Your task to perform on an android device: Open Maps and search for coffee Image 0: 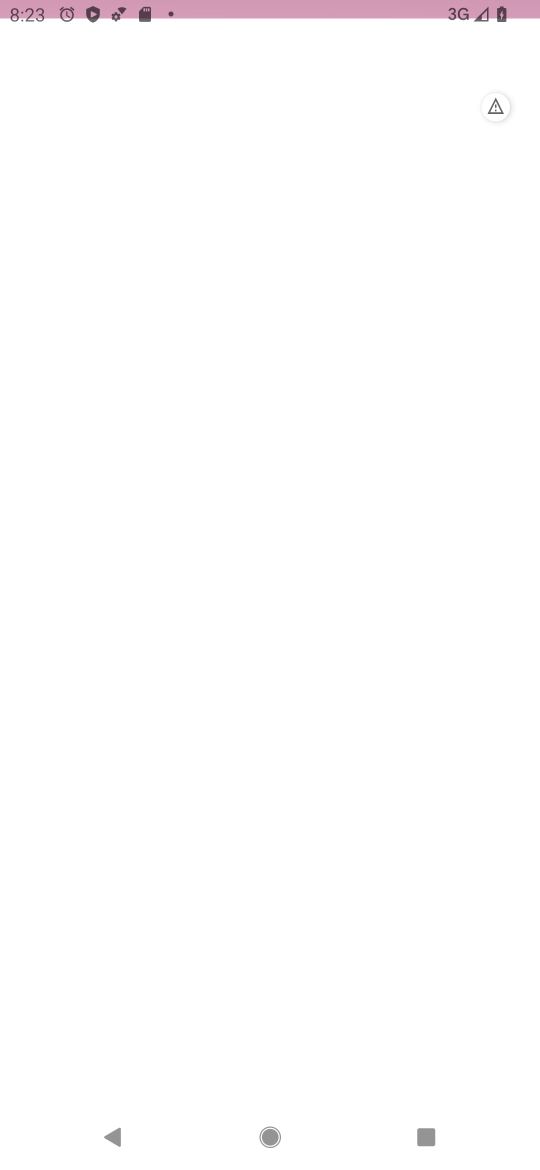
Step 0: click (248, 406)
Your task to perform on an android device: Open Maps and search for coffee Image 1: 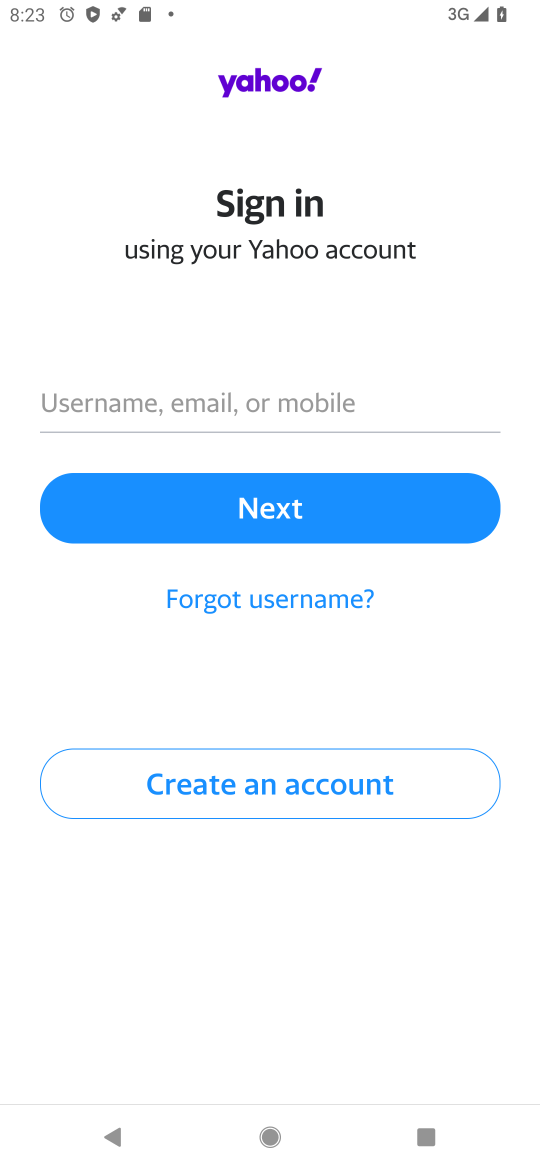
Step 1: press back button
Your task to perform on an android device: Open Maps and search for coffee Image 2: 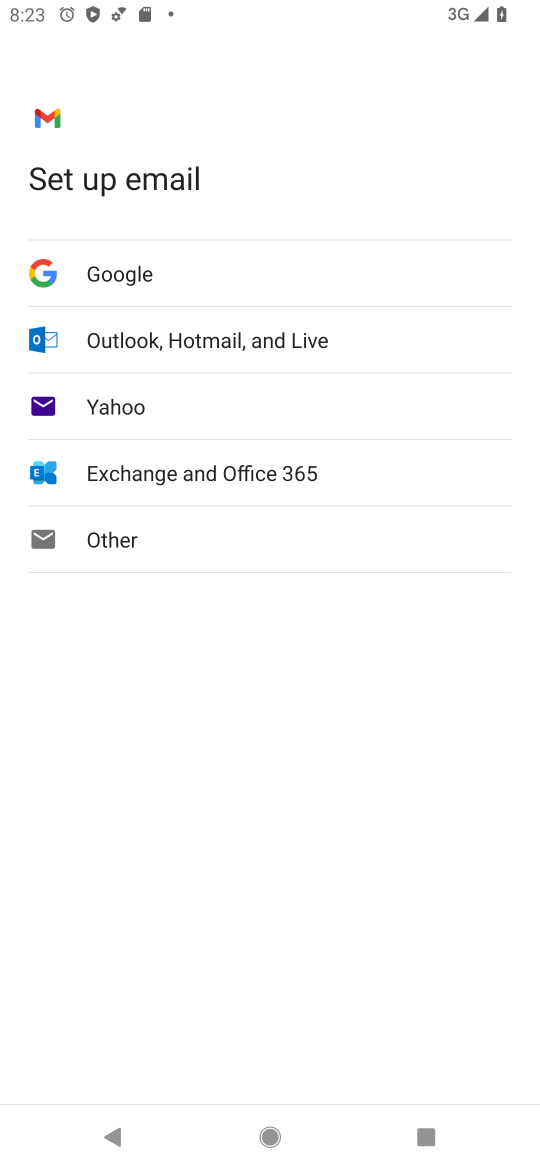
Step 2: press home button
Your task to perform on an android device: Open Maps and search for coffee Image 3: 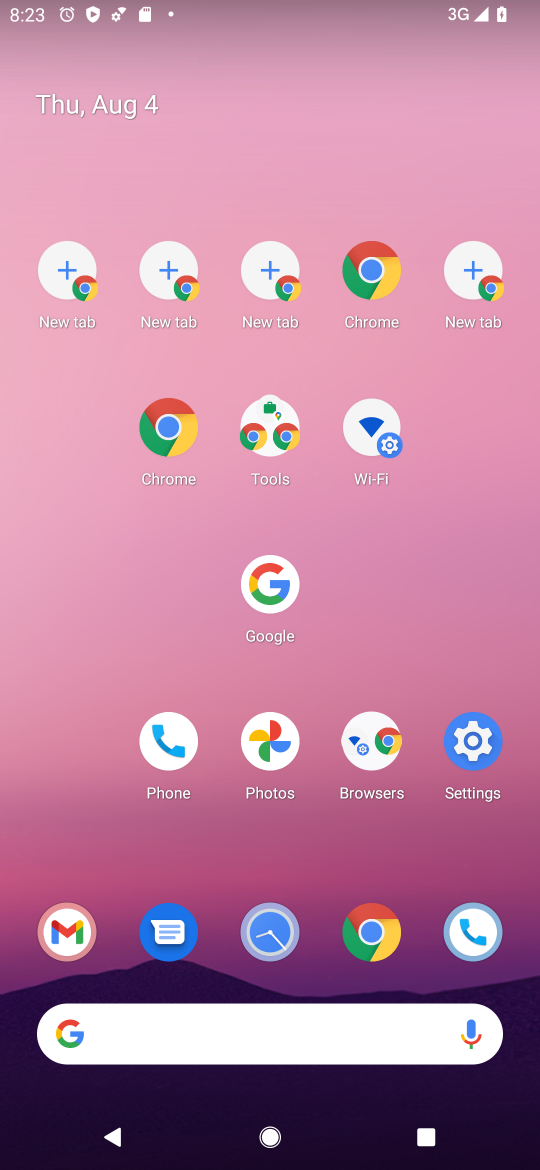
Step 3: drag from (293, 927) to (249, 321)
Your task to perform on an android device: Open Maps and search for coffee Image 4: 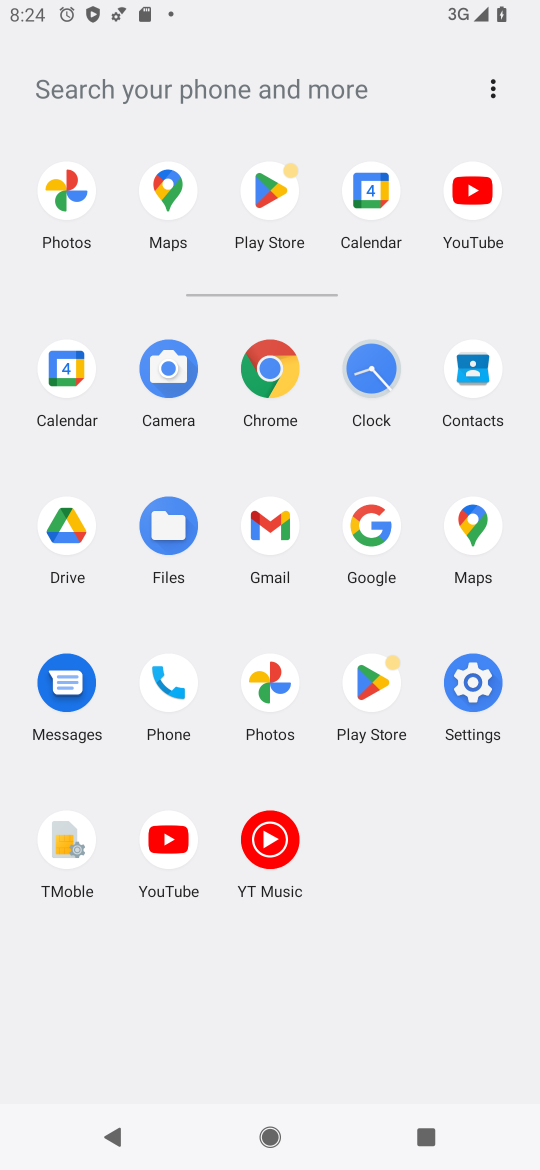
Step 4: click (473, 520)
Your task to perform on an android device: Open Maps and search for coffee Image 5: 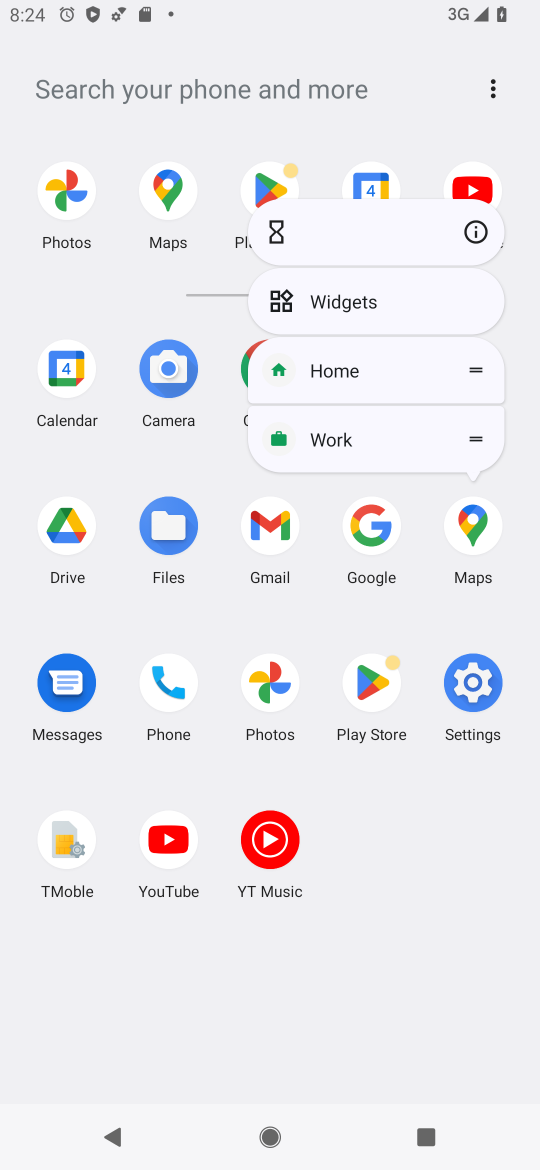
Step 5: click (348, 431)
Your task to perform on an android device: Open Maps and search for coffee Image 6: 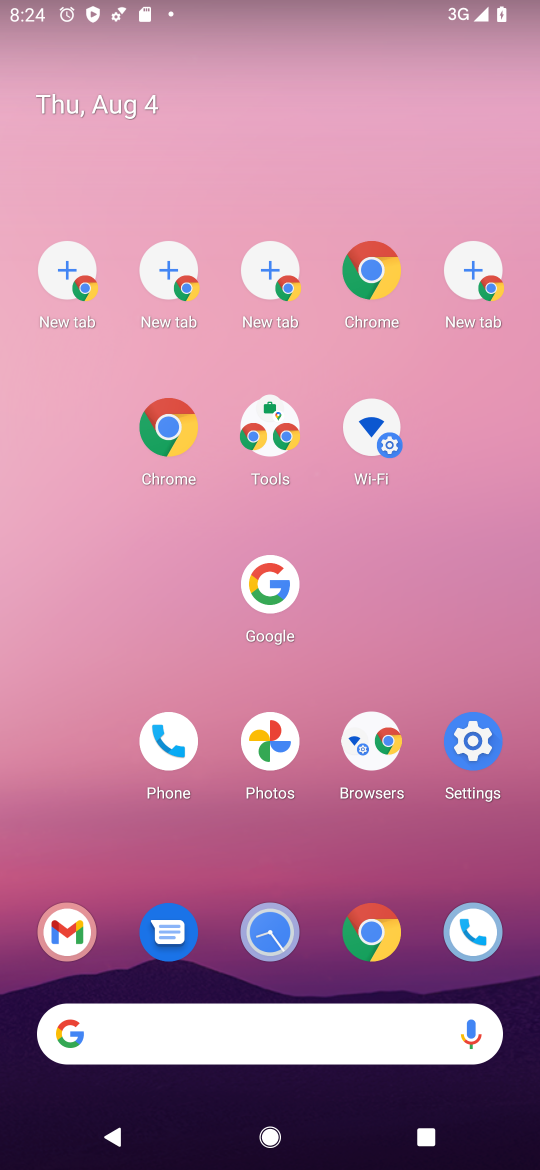
Step 6: drag from (287, 992) to (321, 245)
Your task to perform on an android device: Open Maps and search for coffee Image 7: 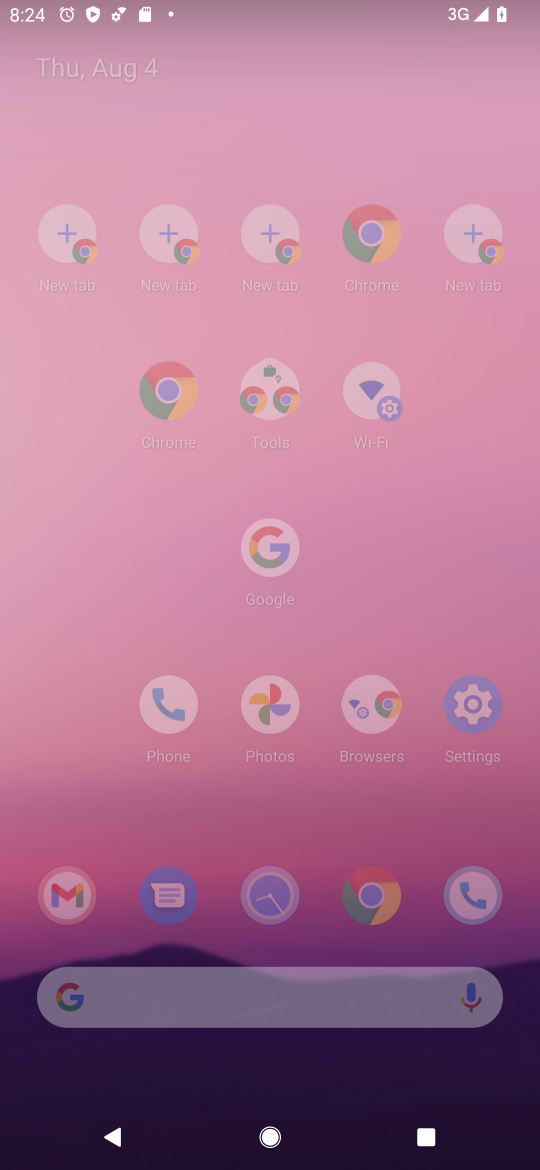
Step 7: drag from (391, 451) to (391, 187)
Your task to perform on an android device: Open Maps and search for coffee Image 8: 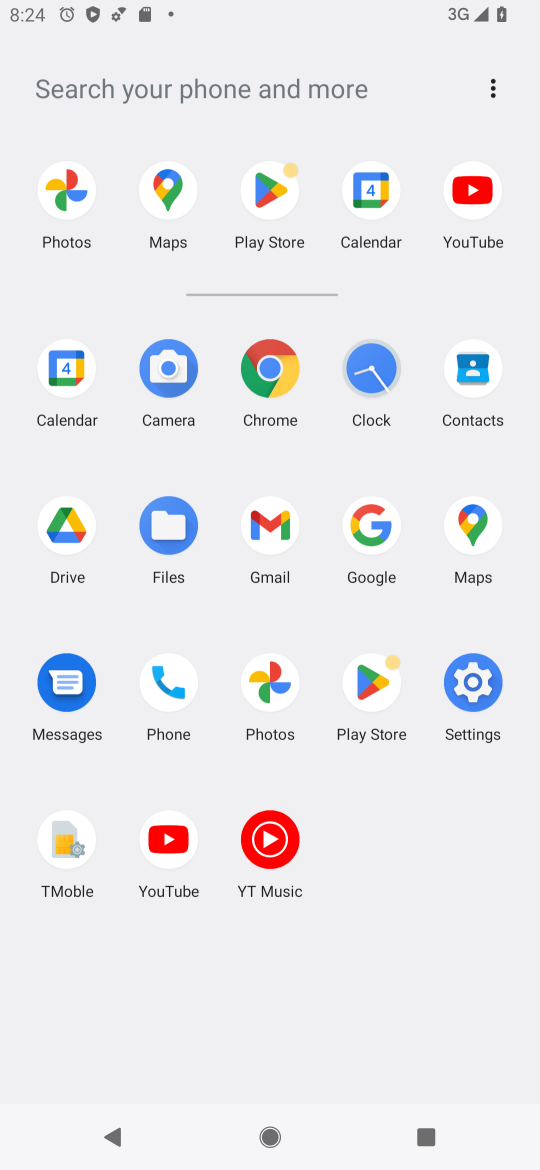
Step 8: drag from (404, 432) to (404, 269)
Your task to perform on an android device: Open Maps and search for coffee Image 9: 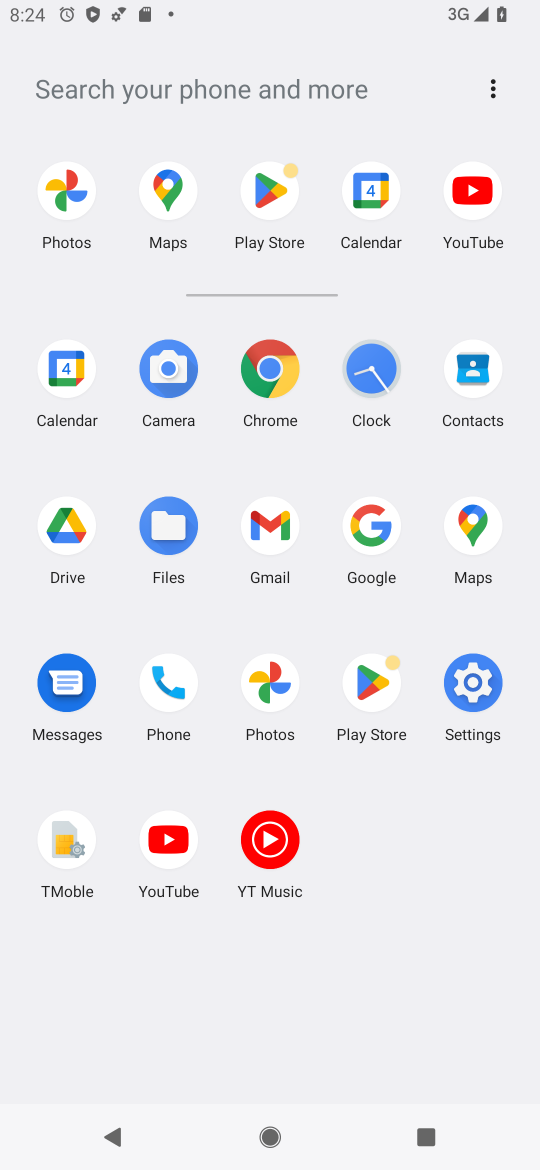
Step 9: click (475, 520)
Your task to perform on an android device: Open Maps and search for coffee Image 10: 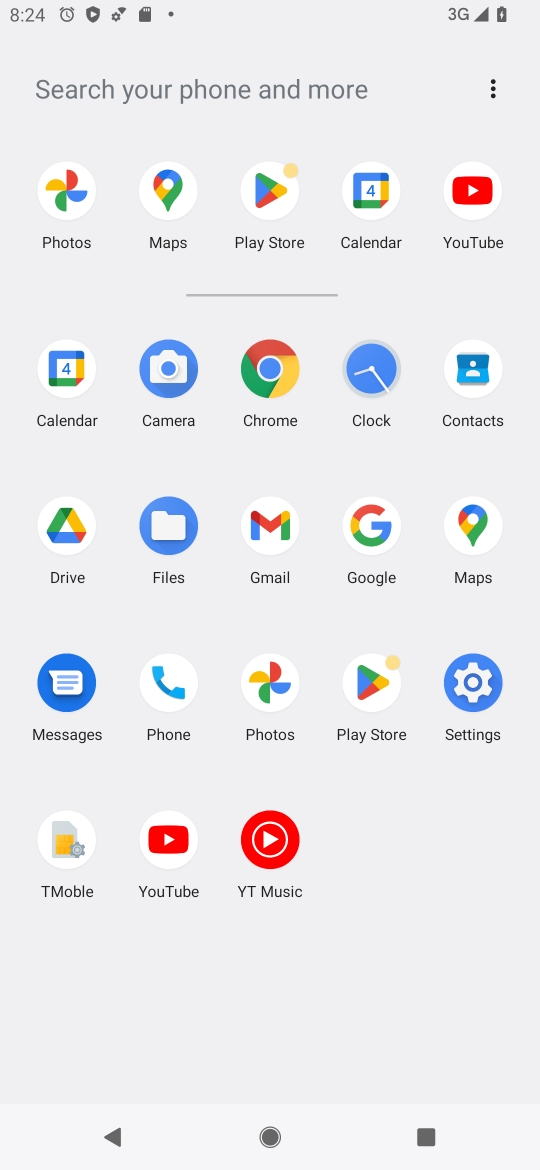
Step 10: click (472, 522)
Your task to perform on an android device: Open Maps and search for coffee Image 11: 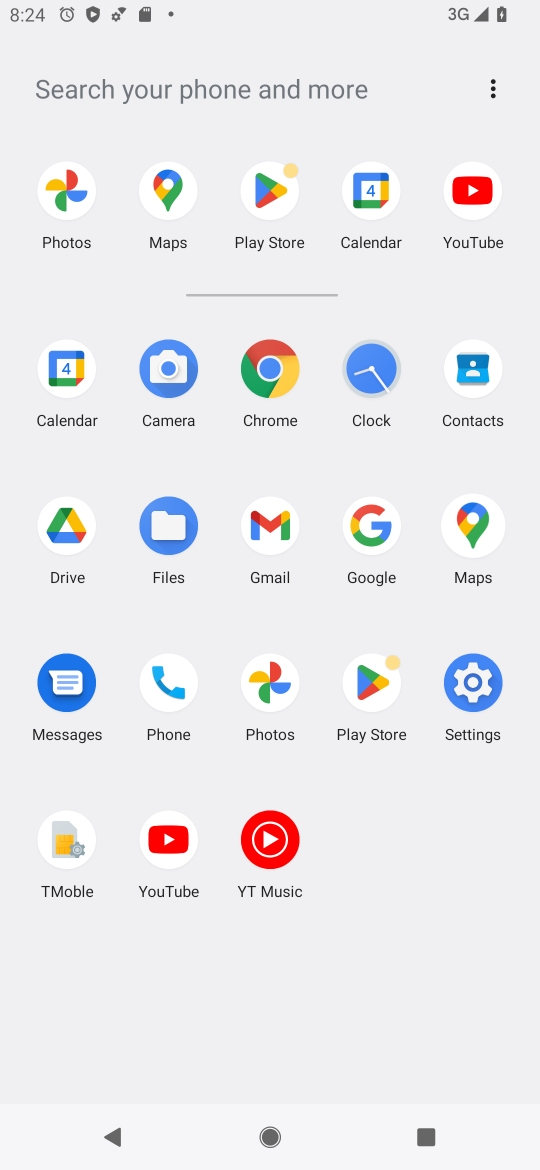
Step 11: click (480, 524)
Your task to perform on an android device: Open Maps and search for coffee Image 12: 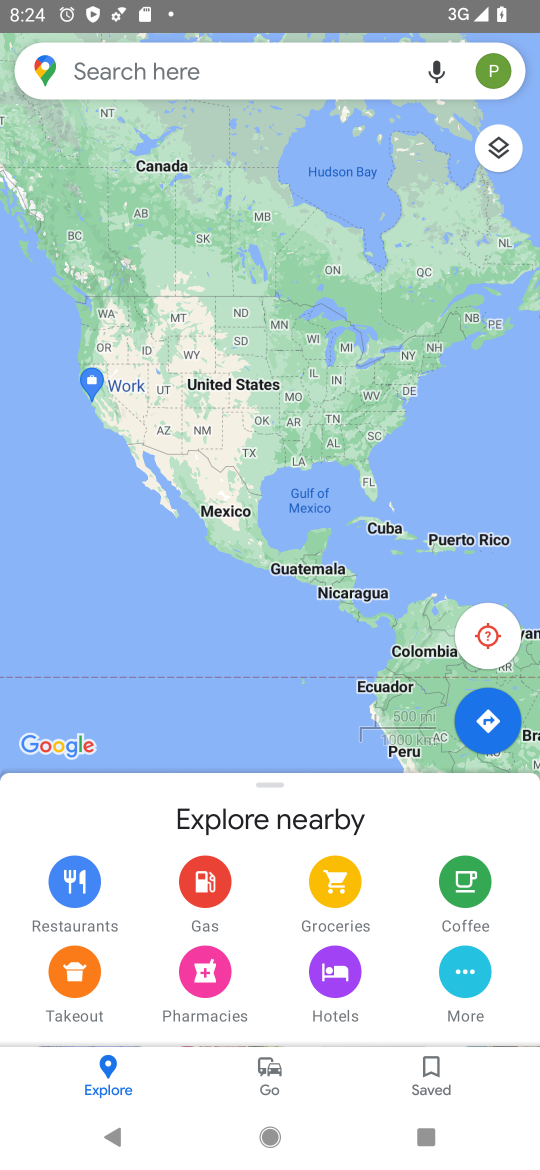
Step 12: click (138, 65)
Your task to perform on an android device: Open Maps and search for coffee Image 13: 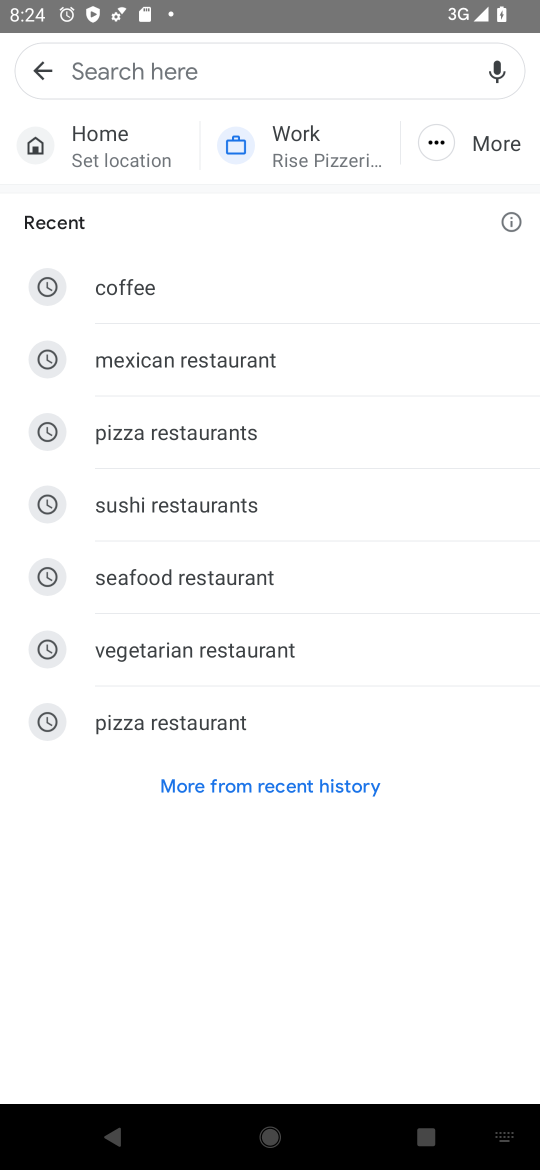
Step 13: click (129, 281)
Your task to perform on an android device: Open Maps and search for coffee Image 14: 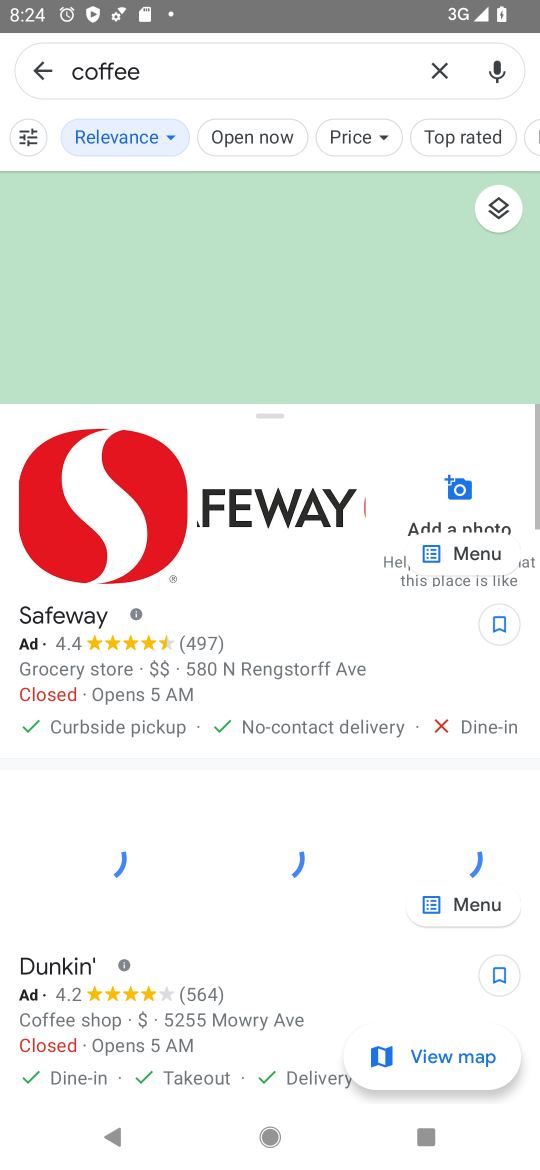
Step 14: task complete